Your task to perform on an android device: manage bookmarks in the chrome app Image 0: 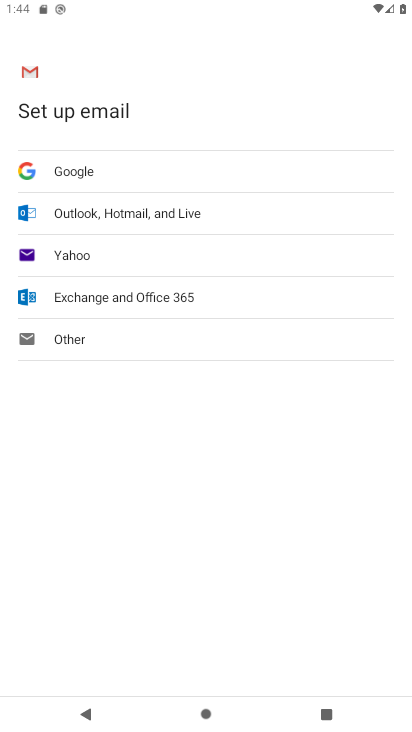
Step 0: press home button
Your task to perform on an android device: manage bookmarks in the chrome app Image 1: 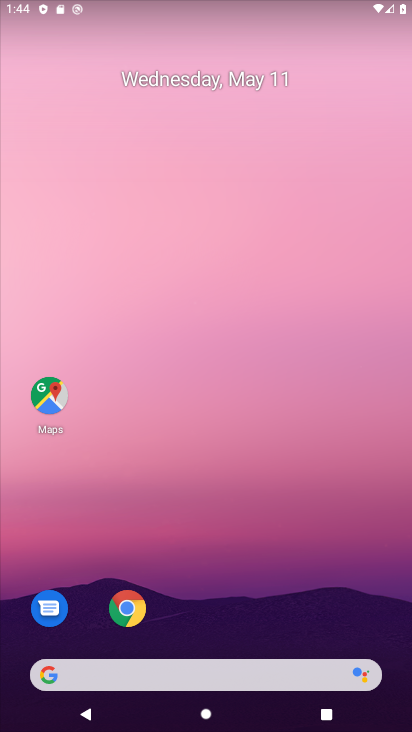
Step 1: click (126, 607)
Your task to perform on an android device: manage bookmarks in the chrome app Image 2: 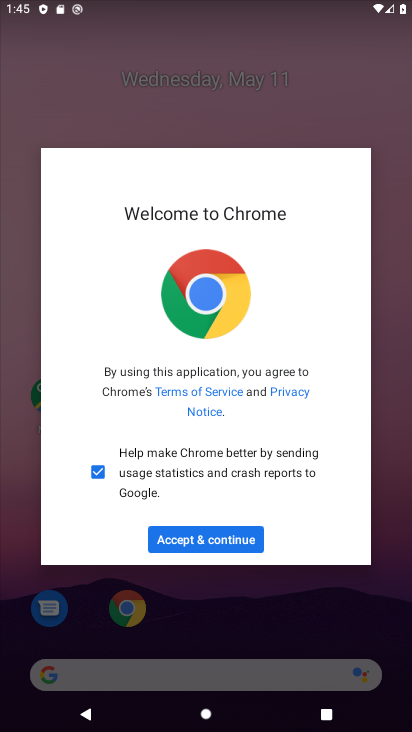
Step 2: click (220, 540)
Your task to perform on an android device: manage bookmarks in the chrome app Image 3: 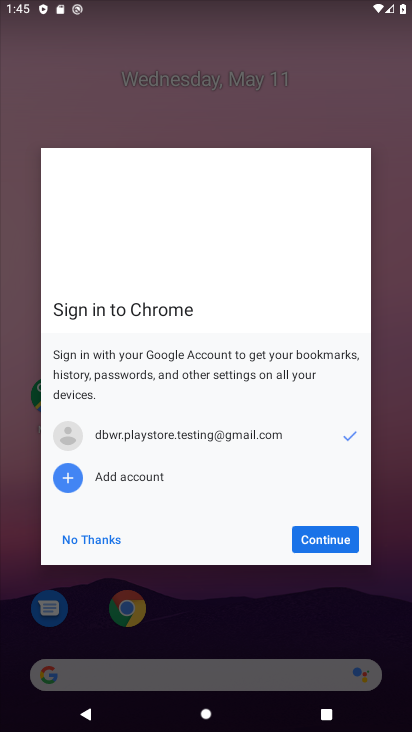
Step 3: click (309, 532)
Your task to perform on an android device: manage bookmarks in the chrome app Image 4: 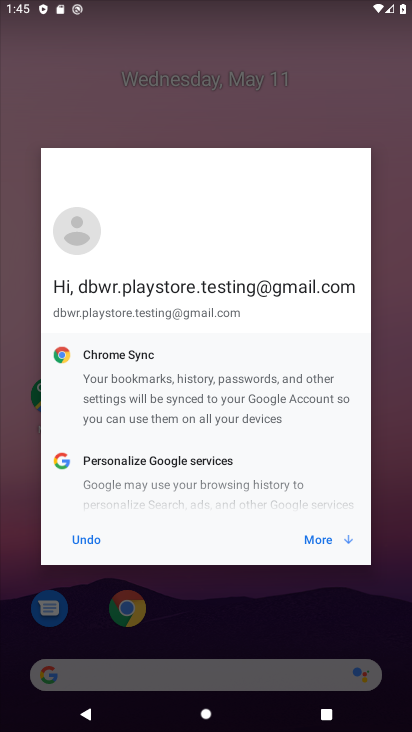
Step 4: click (318, 538)
Your task to perform on an android device: manage bookmarks in the chrome app Image 5: 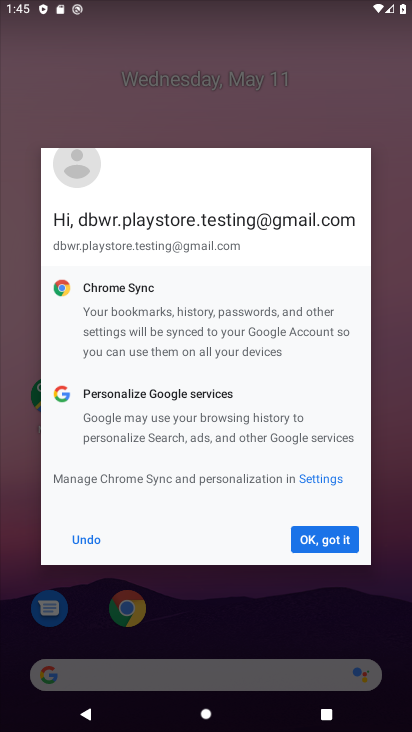
Step 5: click (318, 538)
Your task to perform on an android device: manage bookmarks in the chrome app Image 6: 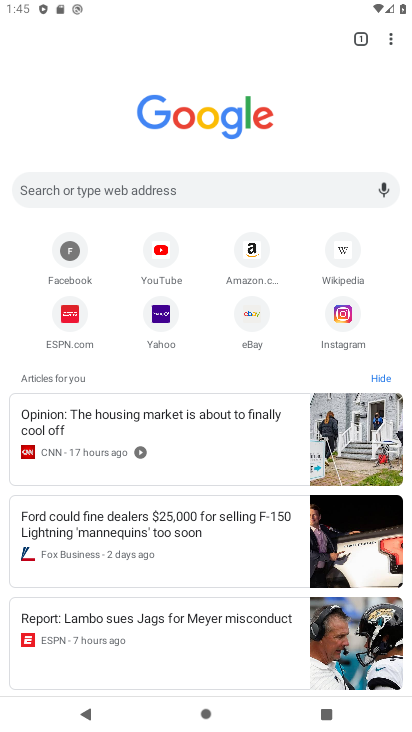
Step 6: click (386, 36)
Your task to perform on an android device: manage bookmarks in the chrome app Image 7: 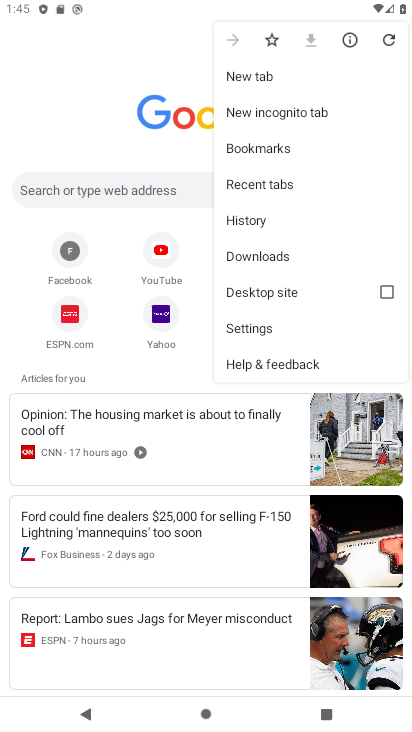
Step 7: click (278, 141)
Your task to perform on an android device: manage bookmarks in the chrome app Image 8: 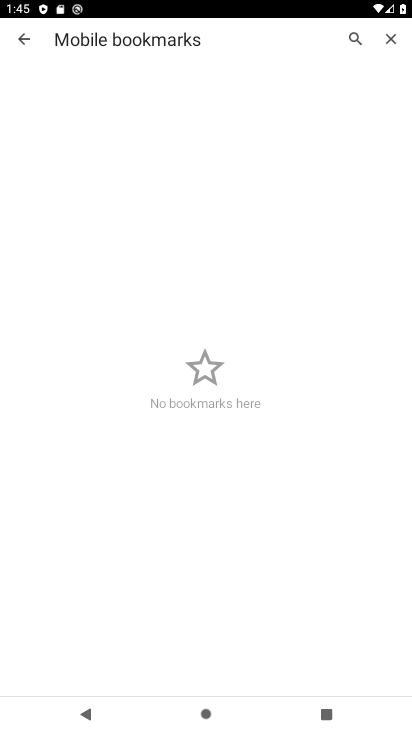
Step 8: task complete